Your task to perform on an android device: turn notification dots off Image 0: 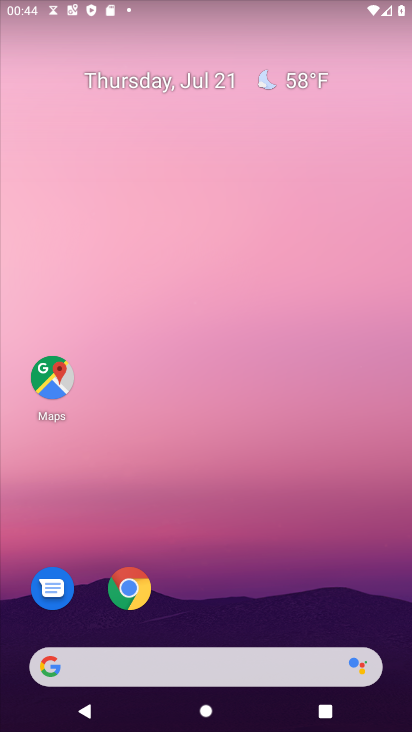
Step 0: drag from (207, 617) to (241, 265)
Your task to perform on an android device: turn notification dots off Image 1: 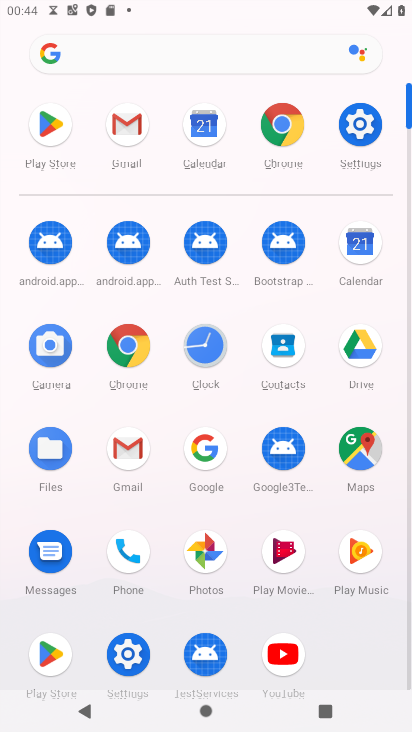
Step 1: click (128, 664)
Your task to perform on an android device: turn notification dots off Image 2: 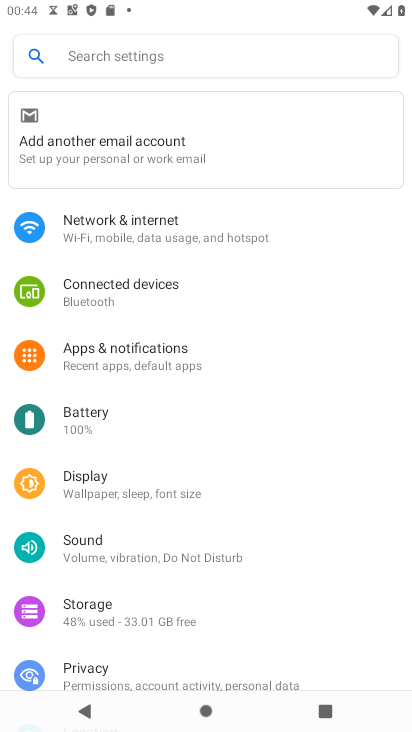
Step 2: click (128, 362)
Your task to perform on an android device: turn notification dots off Image 3: 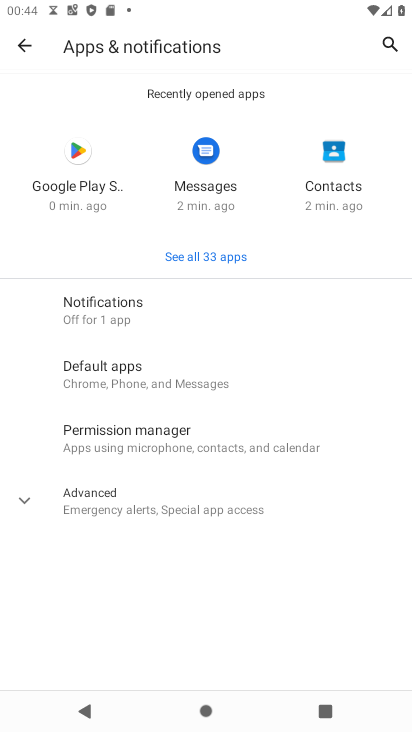
Step 3: click (121, 308)
Your task to perform on an android device: turn notification dots off Image 4: 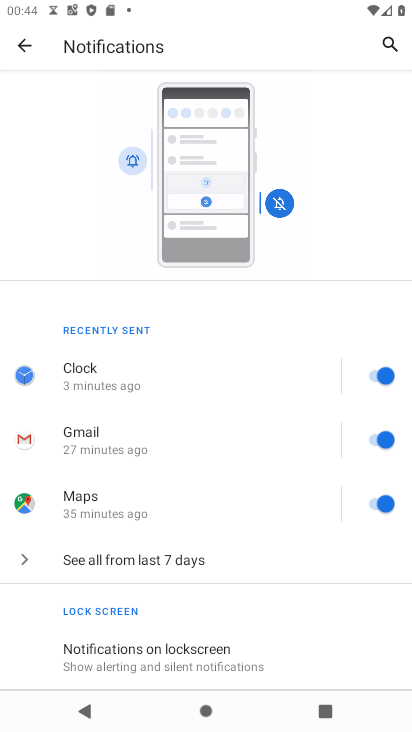
Step 4: drag from (183, 615) to (214, 351)
Your task to perform on an android device: turn notification dots off Image 5: 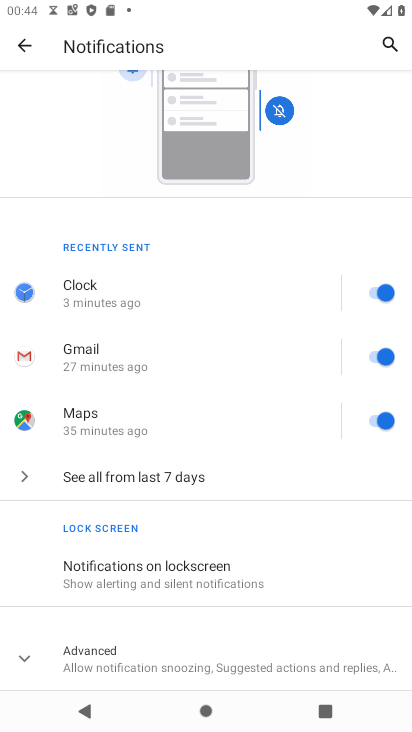
Step 5: click (113, 658)
Your task to perform on an android device: turn notification dots off Image 6: 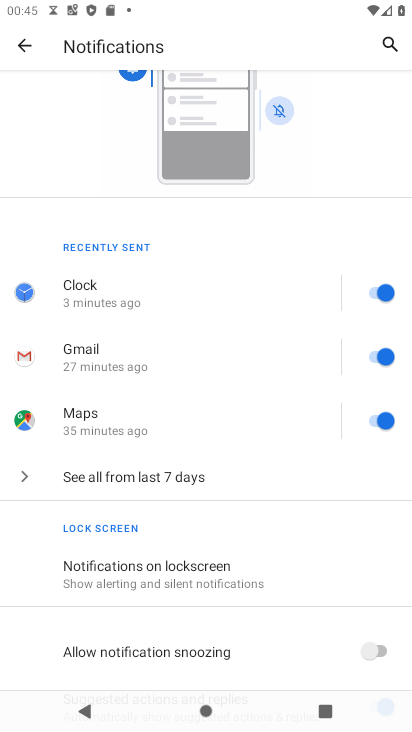
Step 6: task complete